Your task to perform on an android device: Open Maps and search for coffee Image 0: 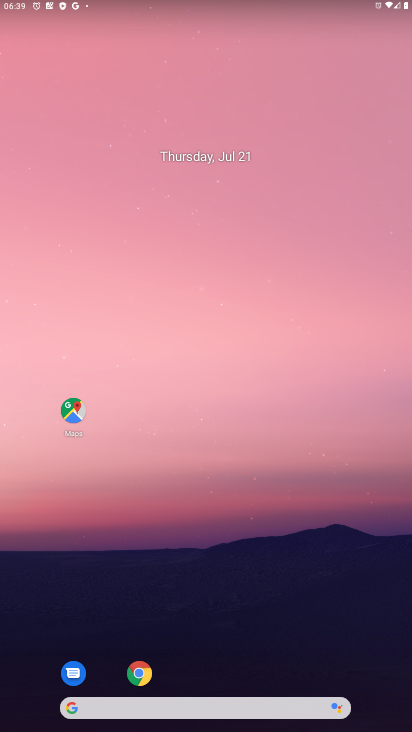
Step 0: click (170, 703)
Your task to perform on an android device: Open Maps and search for coffee Image 1: 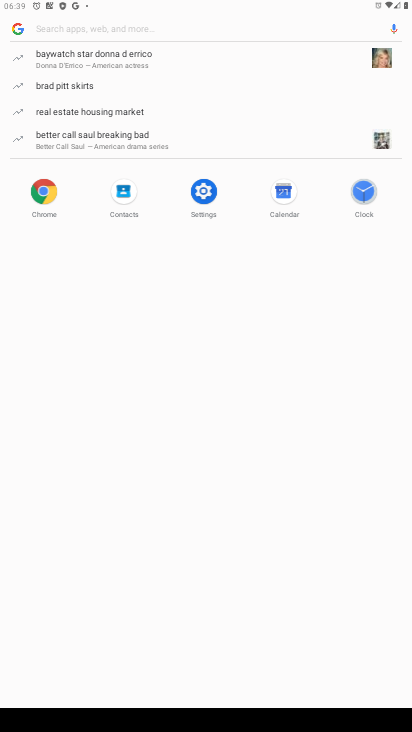
Step 1: press home button
Your task to perform on an android device: Open Maps and search for coffee Image 2: 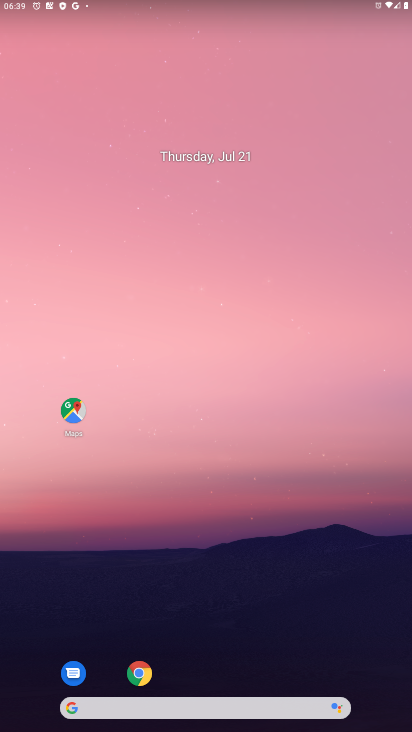
Step 2: click (66, 404)
Your task to perform on an android device: Open Maps and search for coffee Image 3: 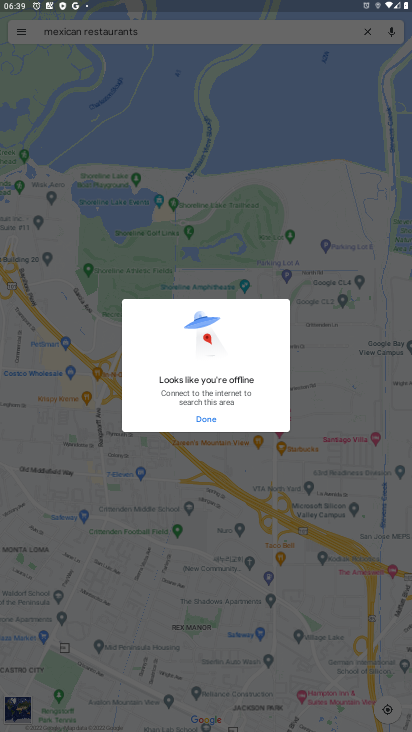
Step 3: task complete